Your task to perform on an android device: Clear the shopping cart on amazon.com. Add razer blade to the cart on amazon.com Image 0: 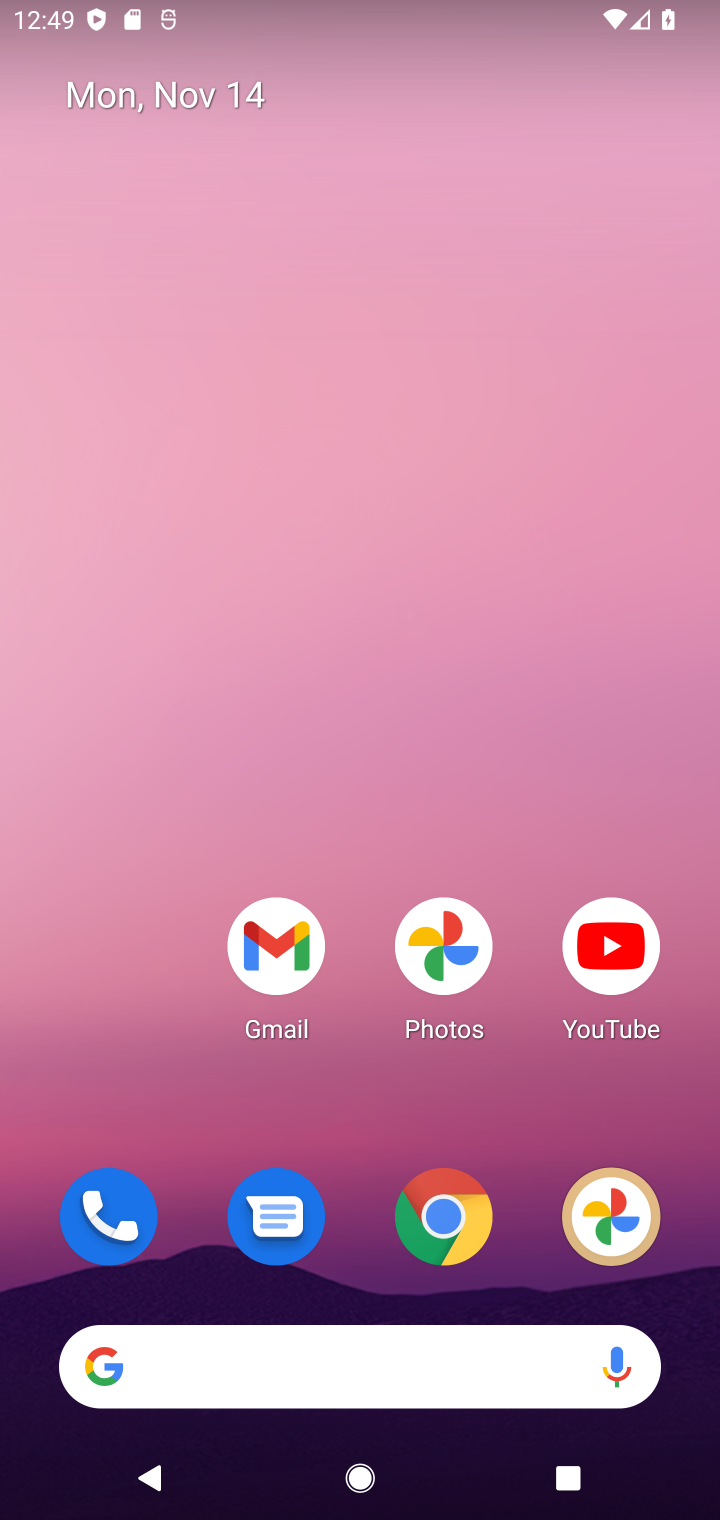
Step 0: click (428, 1220)
Your task to perform on an android device: Clear the shopping cart on amazon.com. Add razer blade to the cart on amazon.com Image 1: 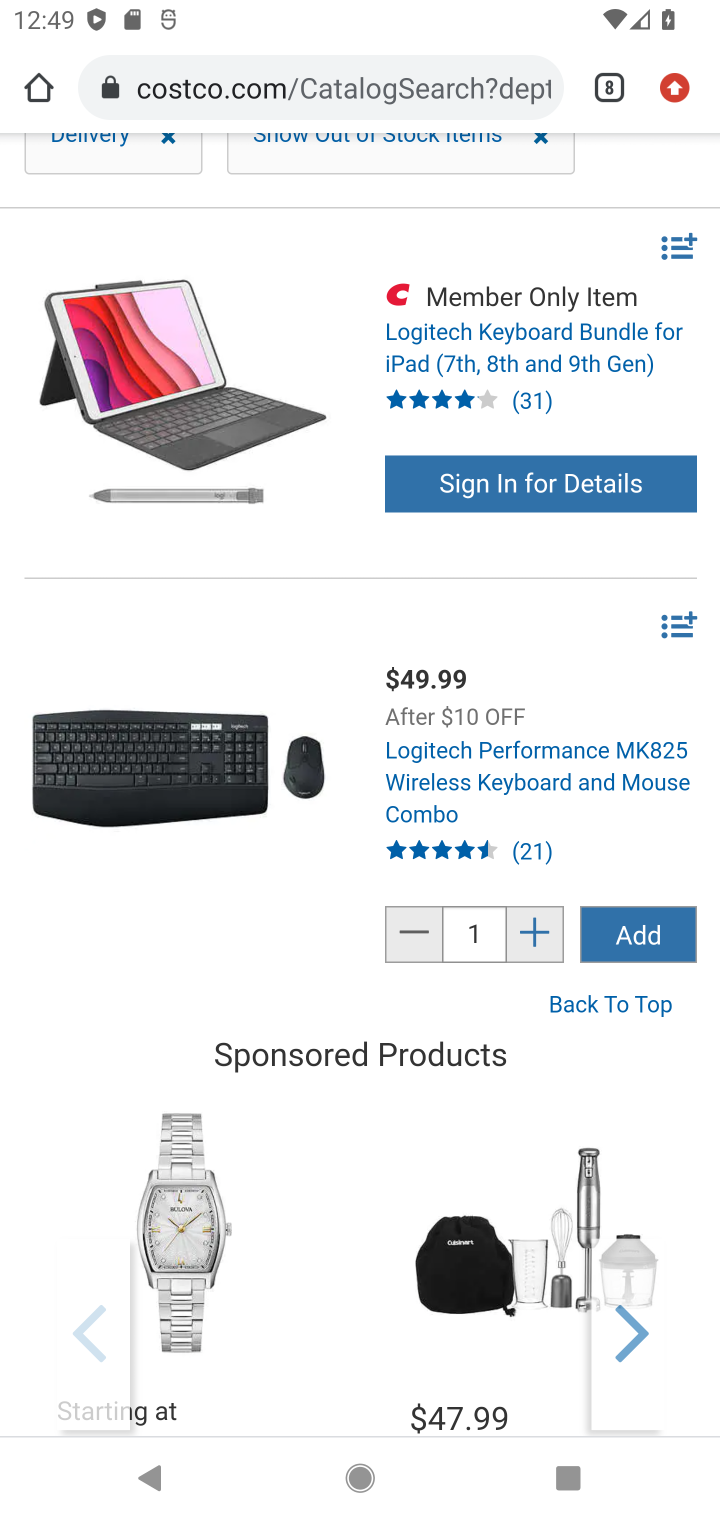
Step 1: click (597, 82)
Your task to perform on an android device: Clear the shopping cart on amazon.com. Add razer blade to the cart on amazon.com Image 2: 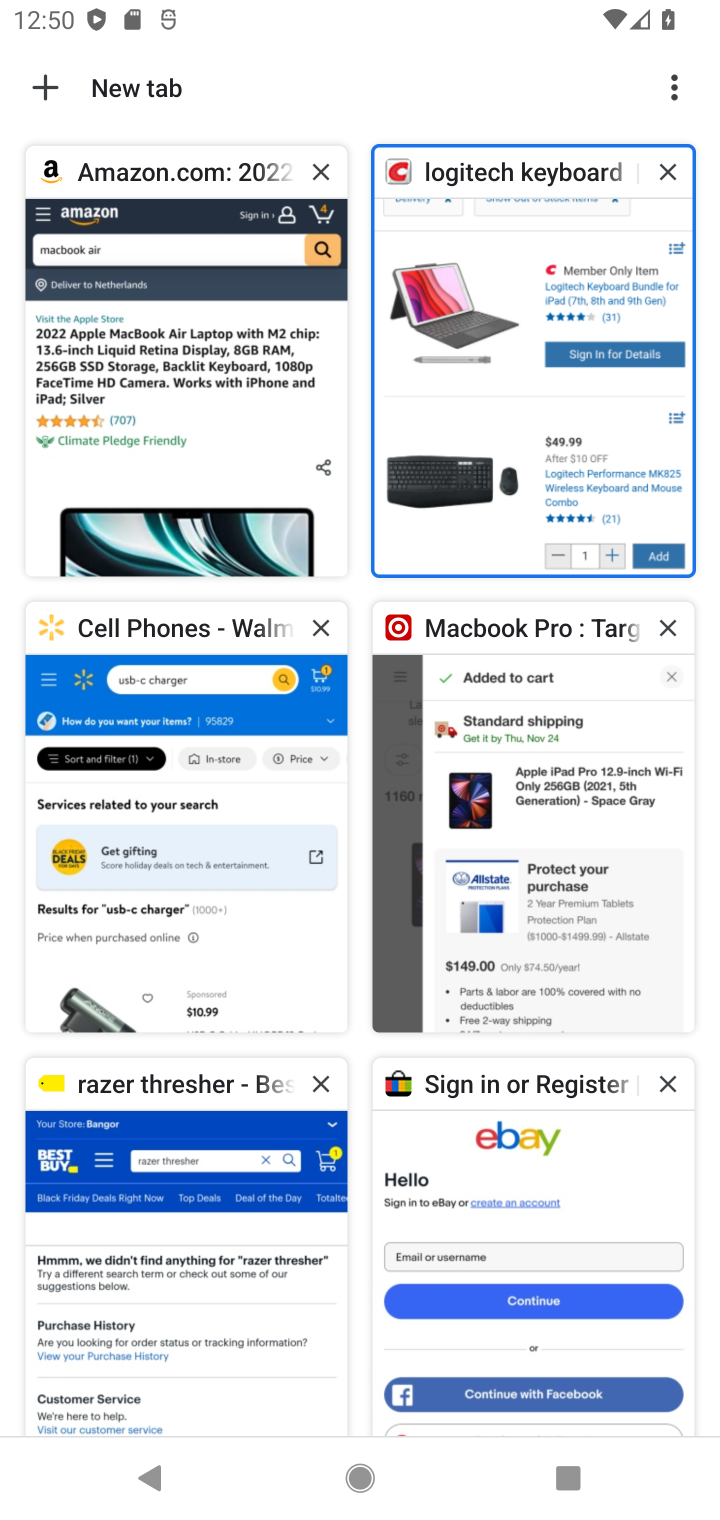
Step 2: click (165, 295)
Your task to perform on an android device: Clear the shopping cart on amazon.com. Add razer blade to the cart on amazon.com Image 3: 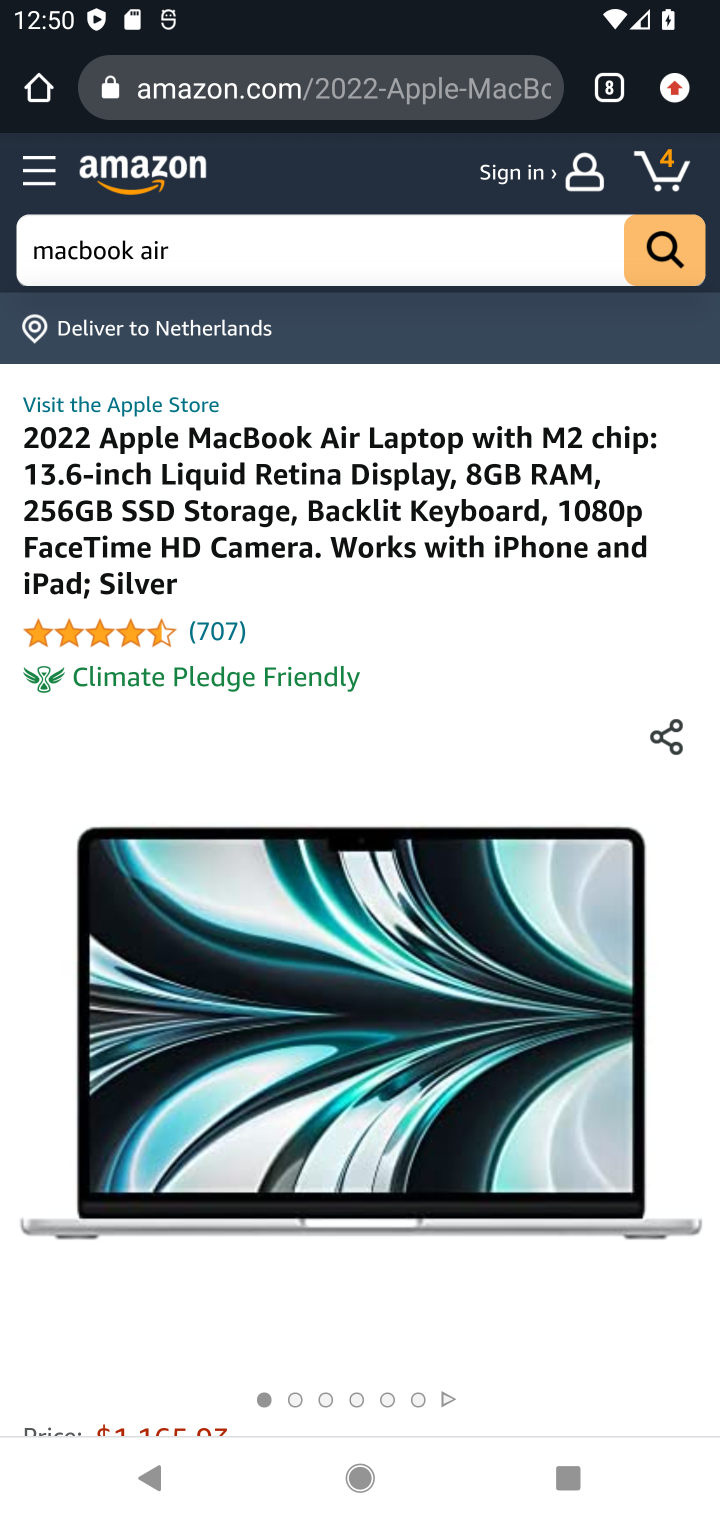
Step 3: click (678, 187)
Your task to perform on an android device: Clear the shopping cart on amazon.com. Add razer blade to the cart on amazon.com Image 4: 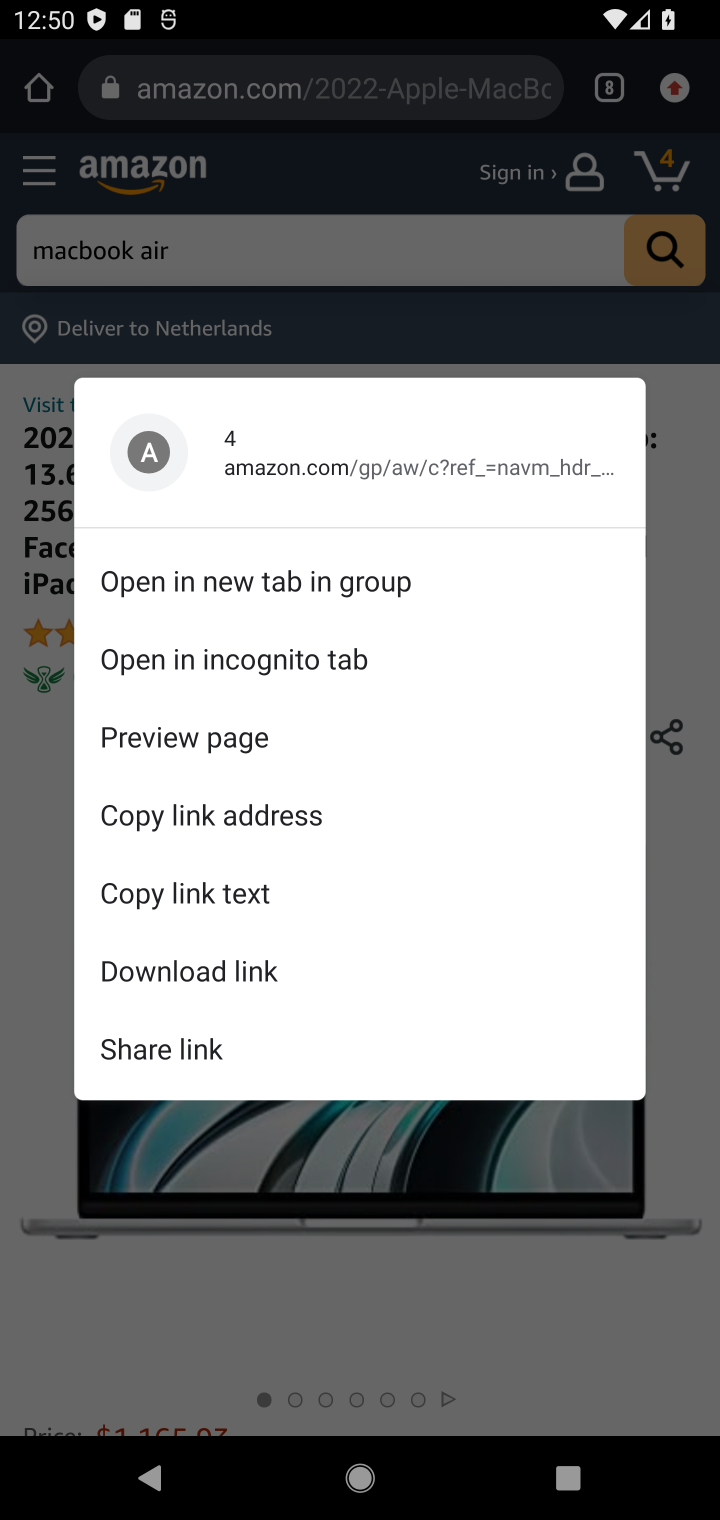
Step 4: click (668, 179)
Your task to perform on an android device: Clear the shopping cart on amazon.com. Add razer blade to the cart on amazon.com Image 5: 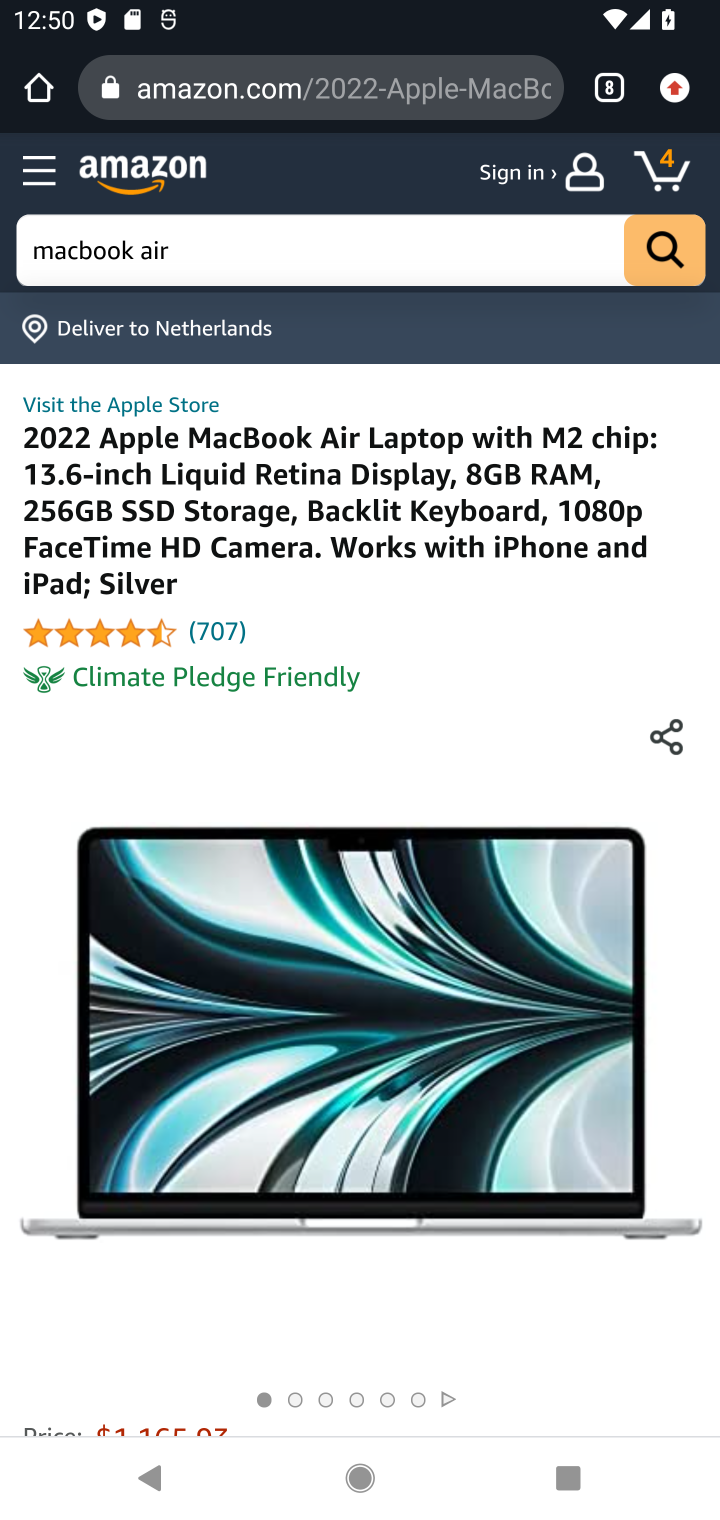
Step 5: click (668, 179)
Your task to perform on an android device: Clear the shopping cart on amazon.com. Add razer blade to the cart on amazon.com Image 6: 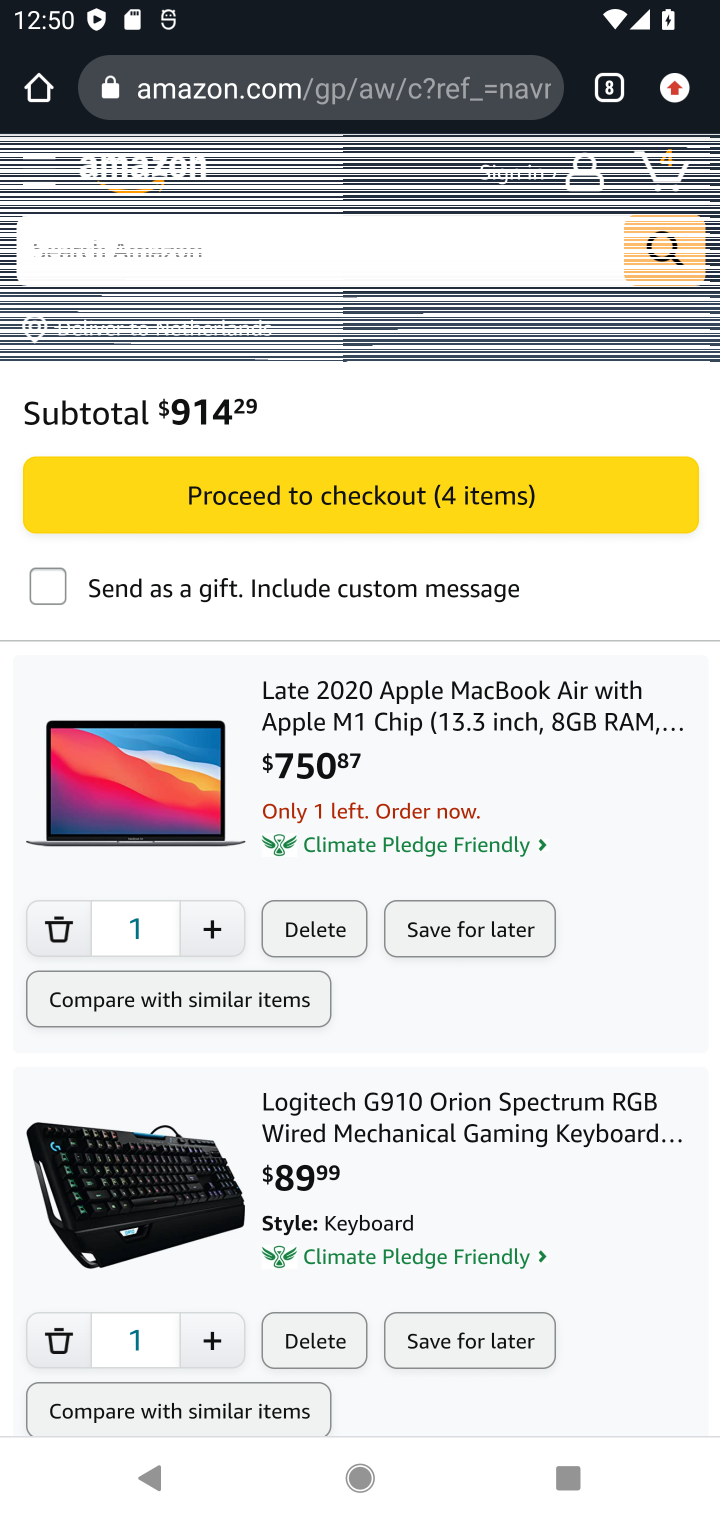
Step 6: click (317, 933)
Your task to perform on an android device: Clear the shopping cart on amazon.com. Add razer blade to the cart on amazon.com Image 7: 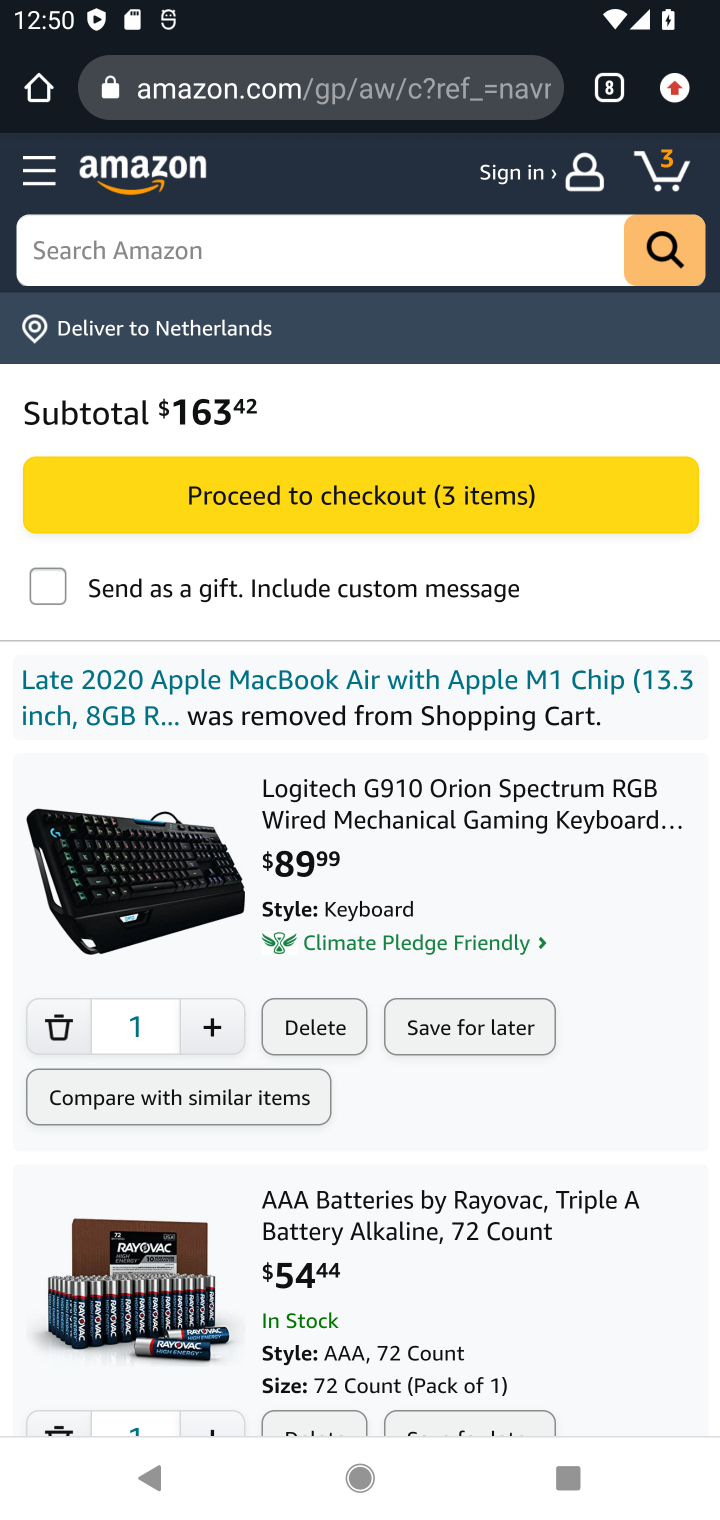
Step 7: click (311, 1020)
Your task to perform on an android device: Clear the shopping cart on amazon.com. Add razer blade to the cart on amazon.com Image 8: 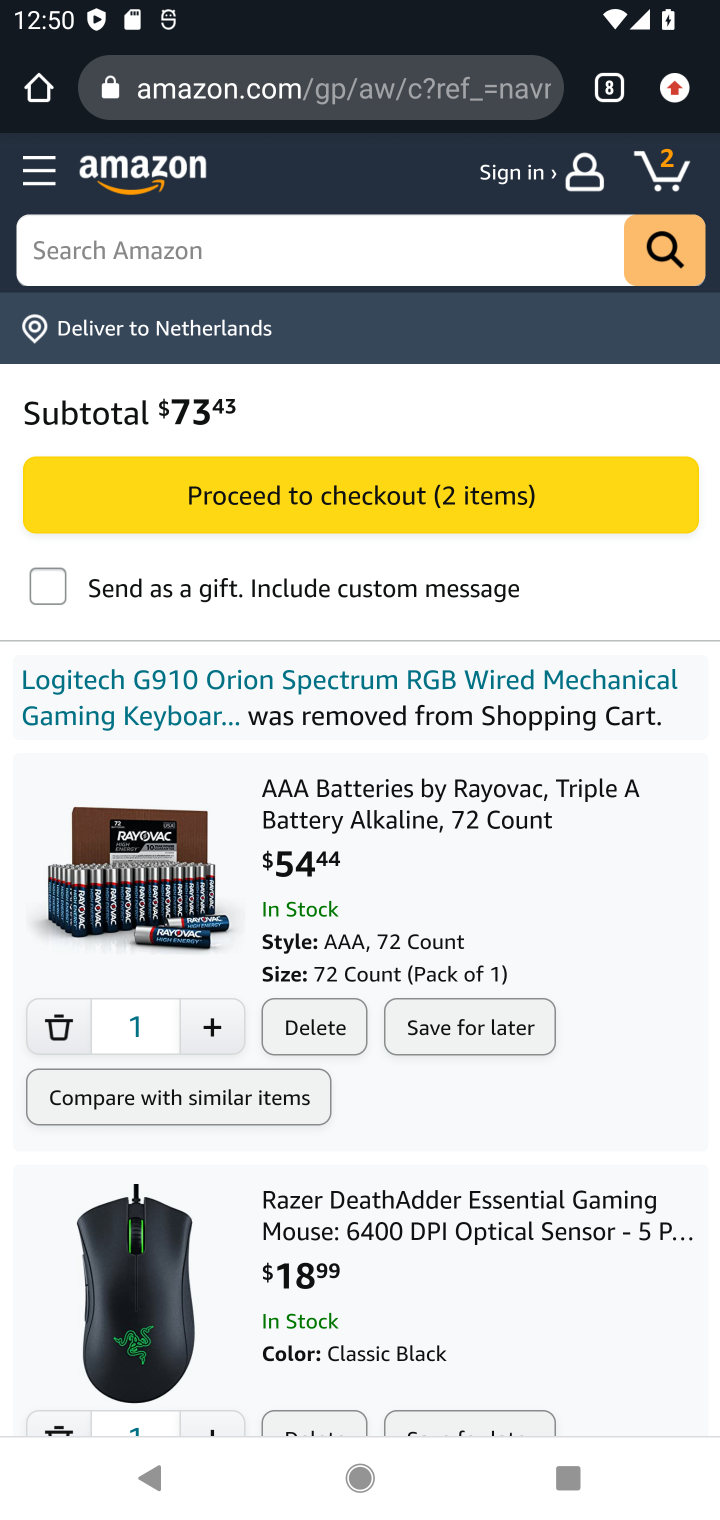
Step 8: click (311, 1020)
Your task to perform on an android device: Clear the shopping cart on amazon.com. Add razer blade to the cart on amazon.com Image 9: 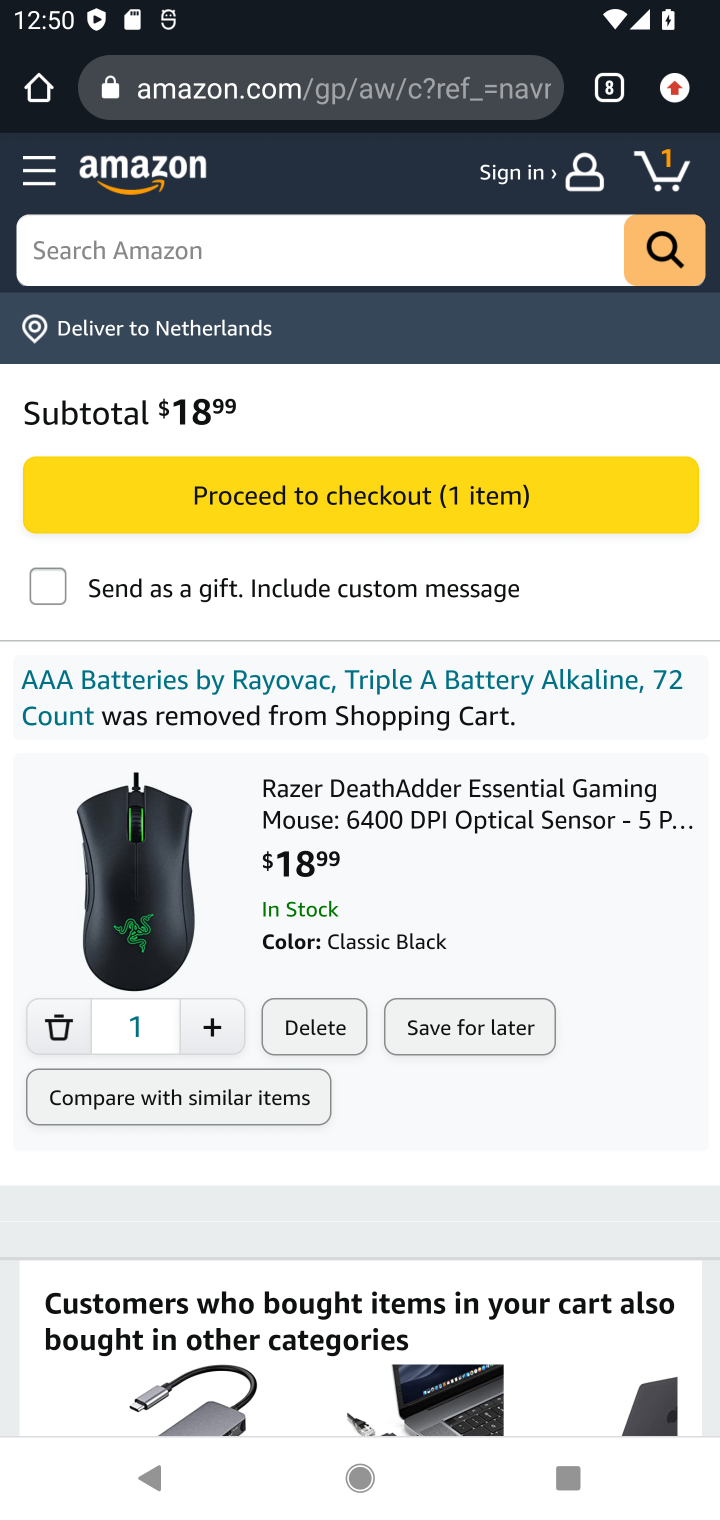
Step 9: click (311, 1020)
Your task to perform on an android device: Clear the shopping cart on amazon.com. Add razer blade to the cart on amazon.com Image 10: 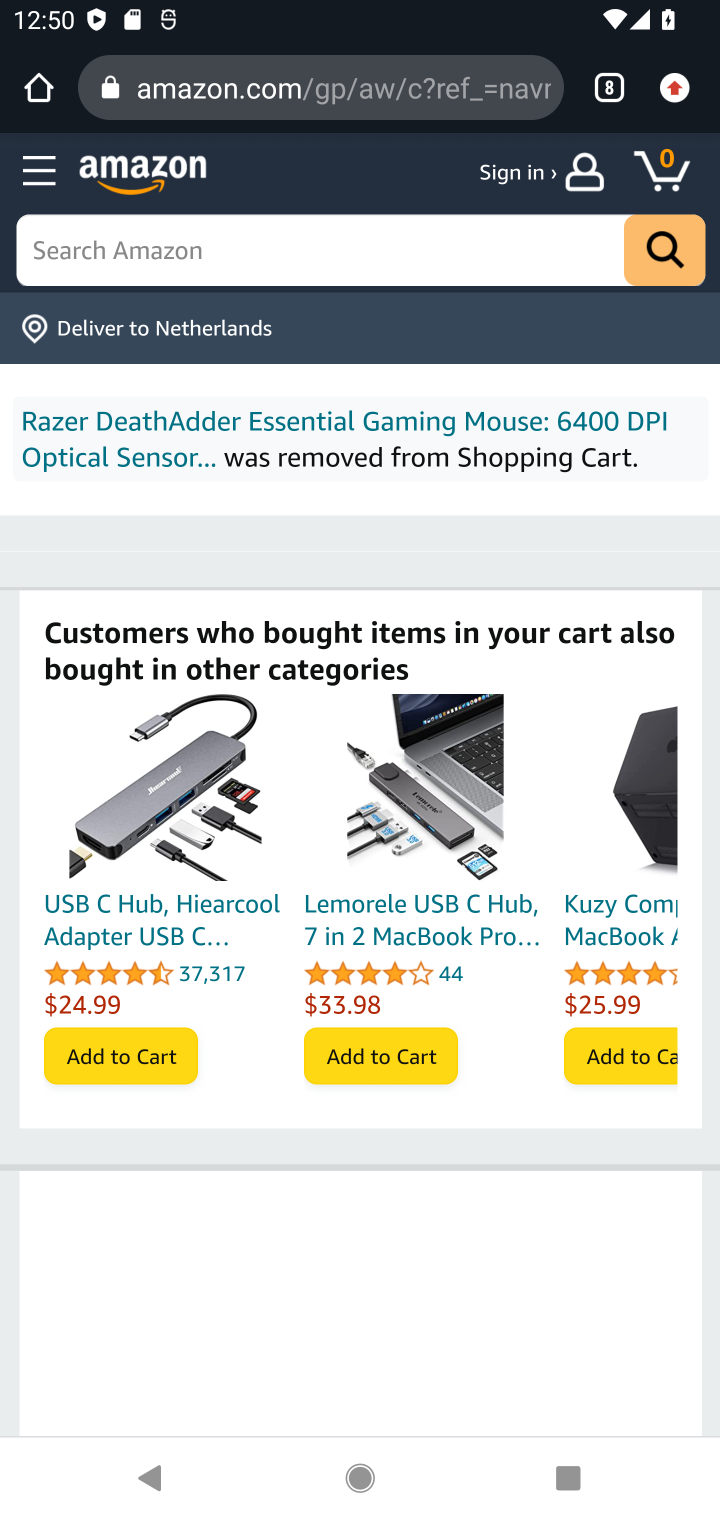
Step 10: type "razer blade"
Your task to perform on an android device: Clear the shopping cart on amazon.com. Add razer blade to the cart on amazon.com Image 11: 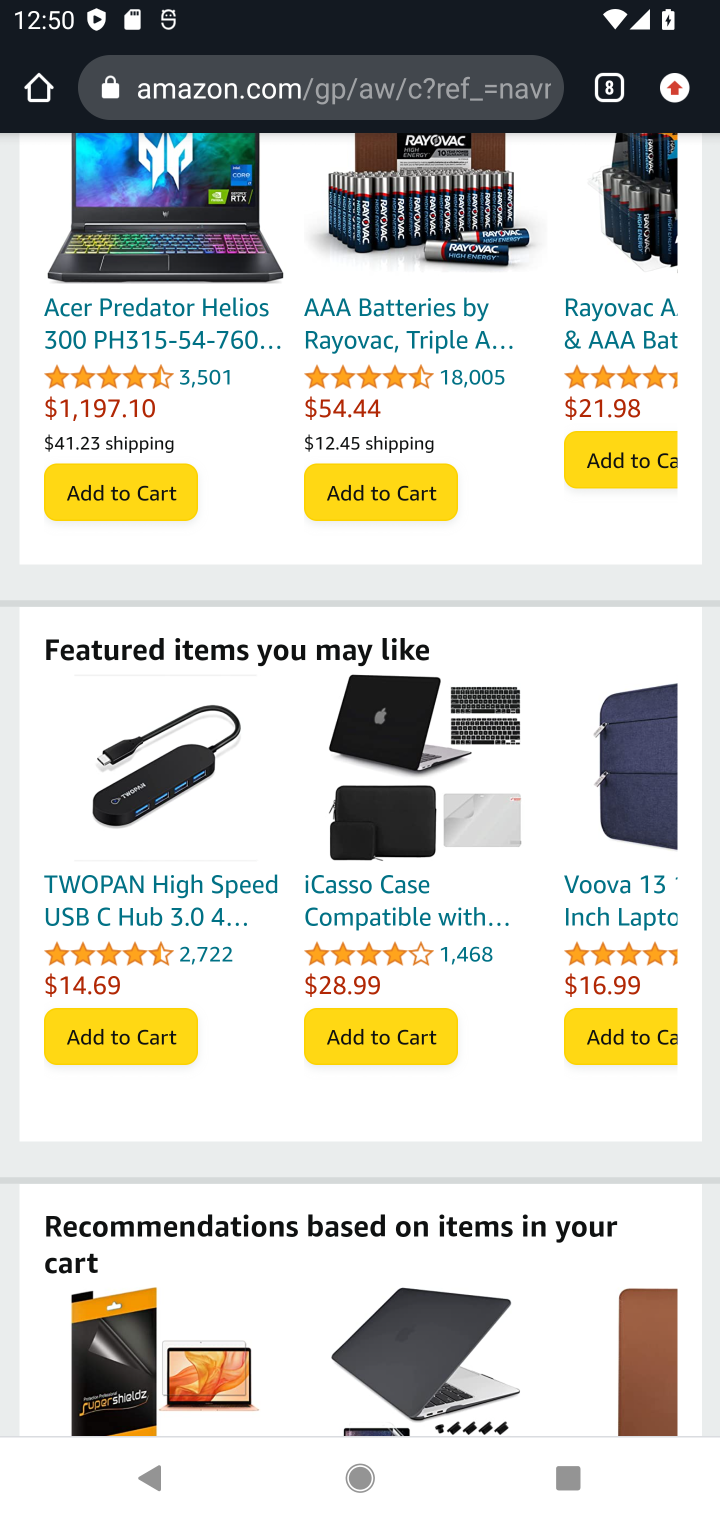
Step 11: drag from (255, 305) to (154, 1035)
Your task to perform on an android device: Clear the shopping cart on amazon.com. Add razer blade to the cart on amazon.com Image 12: 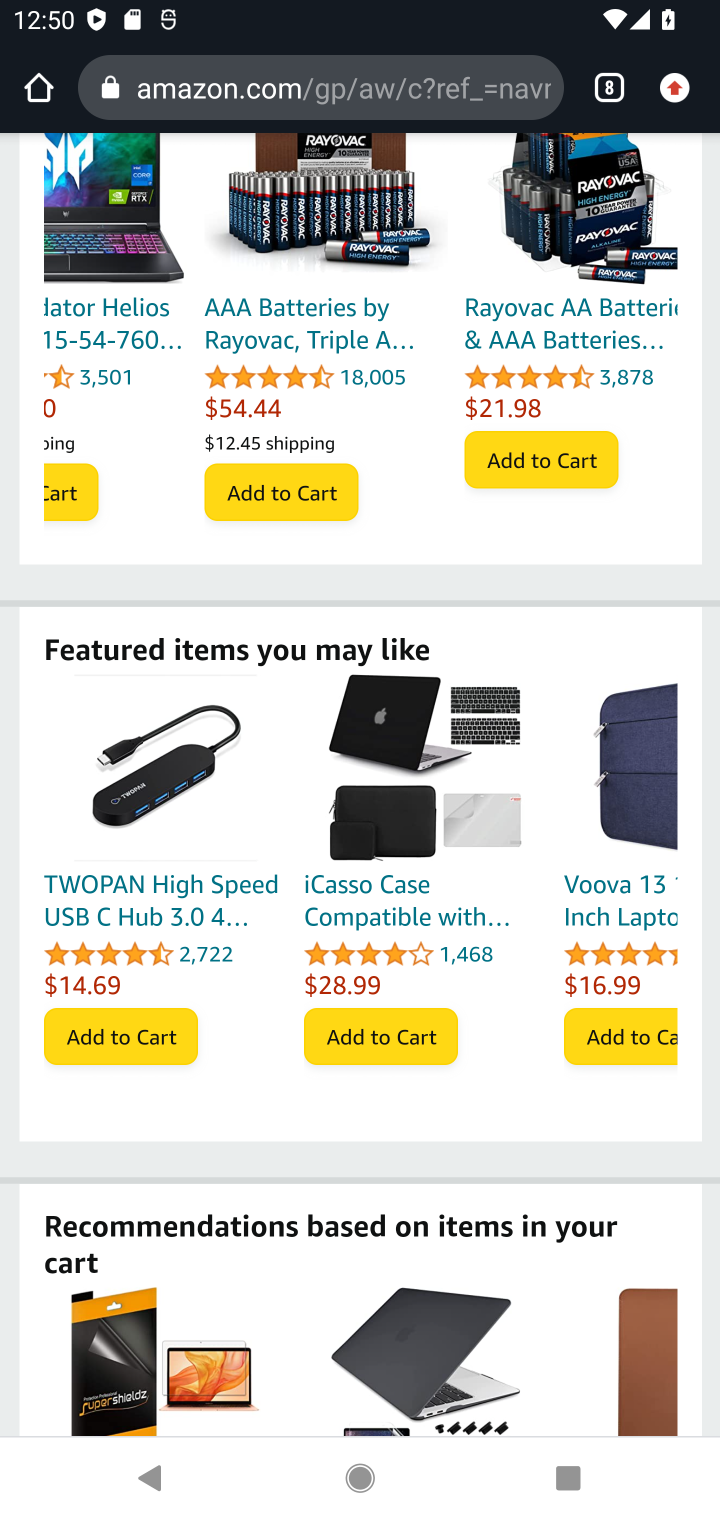
Step 12: drag from (209, 259) to (184, 864)
Your task to perform on an android device: Clear the shopping cart on amazon.com. Add razer blade to the cart on amazon.com Image 13: 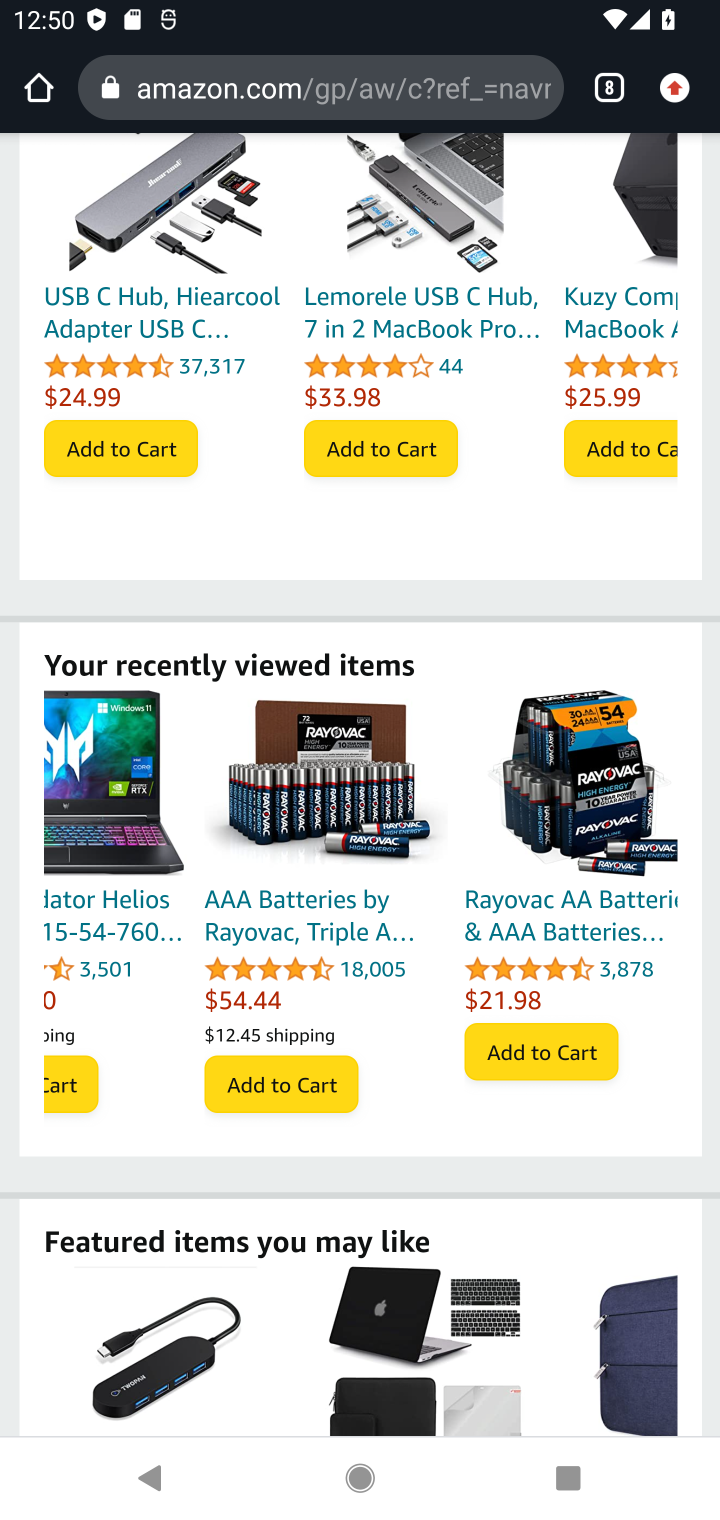
Step 13: drag from (148, 224) to (159, 1211)
Your task to perform on an android device: Clear the shopping cart on amazon.com. Add razer blade to the cart on amazon.com Image 14: 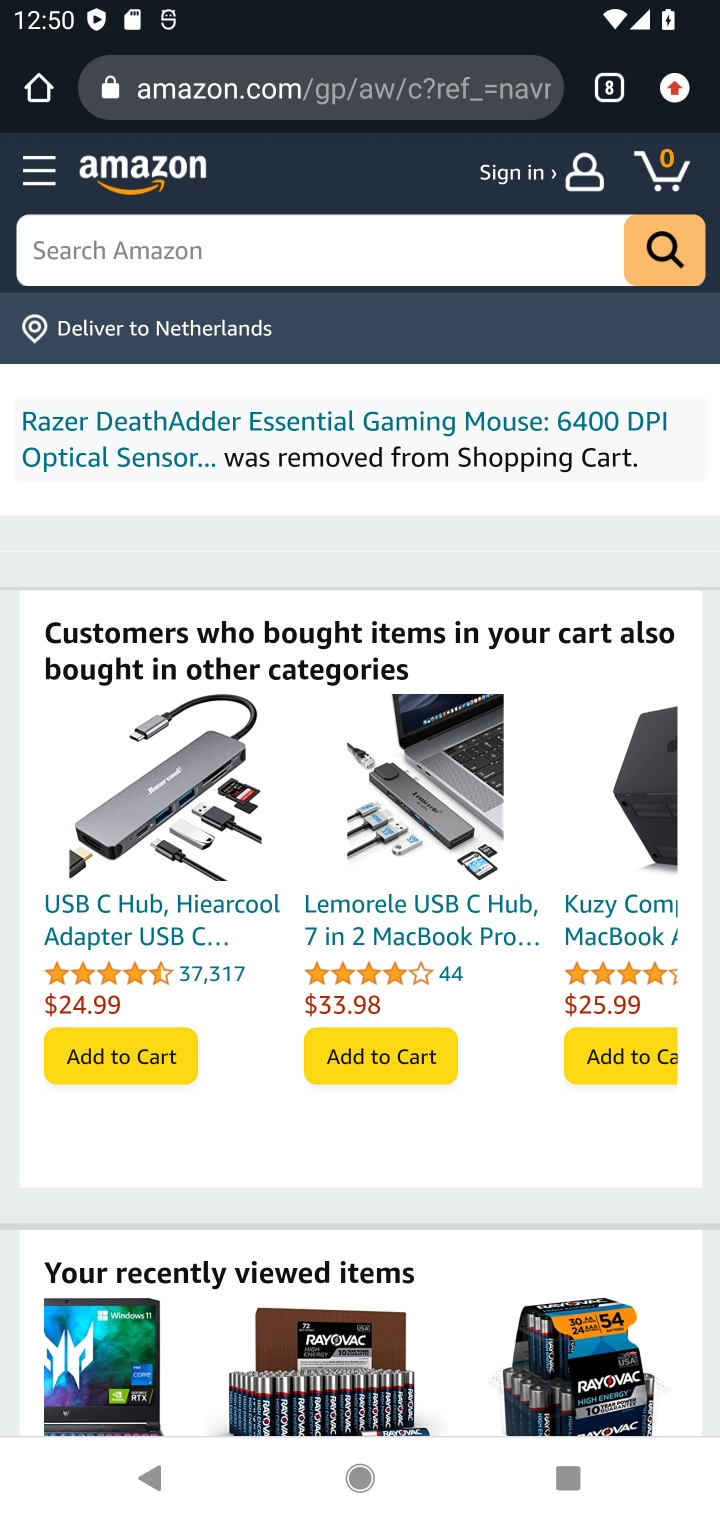
Step 14: click (188, 247)
Your task to perform on an android device: Clear the shopping cart on amazon.com. Add razer blade to the cart on amazon.com Image 15: 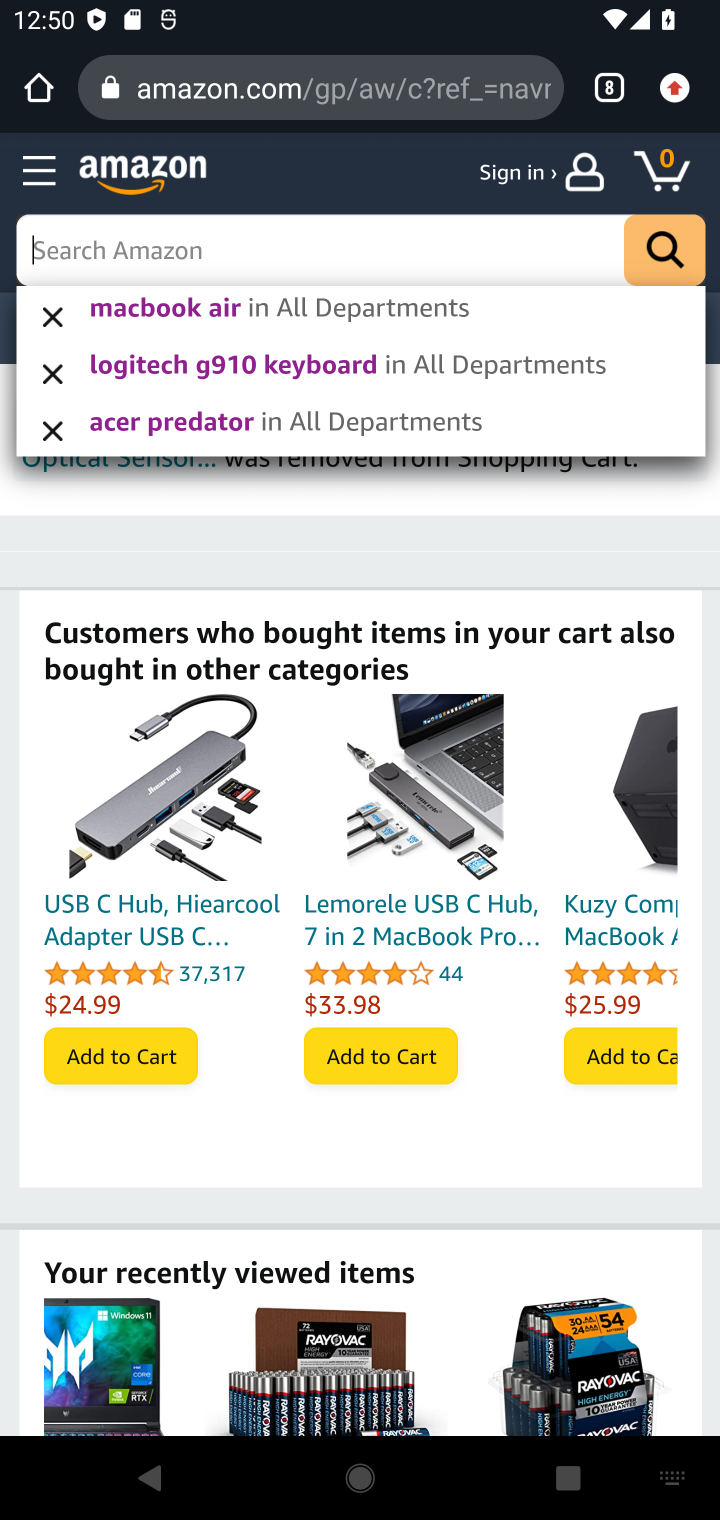
Step 15: type "razer blade"
Your task to perform on an android device: Clear the shopping cart on amazon.com. Add razer blade to the cart on amazon.com Image 16: 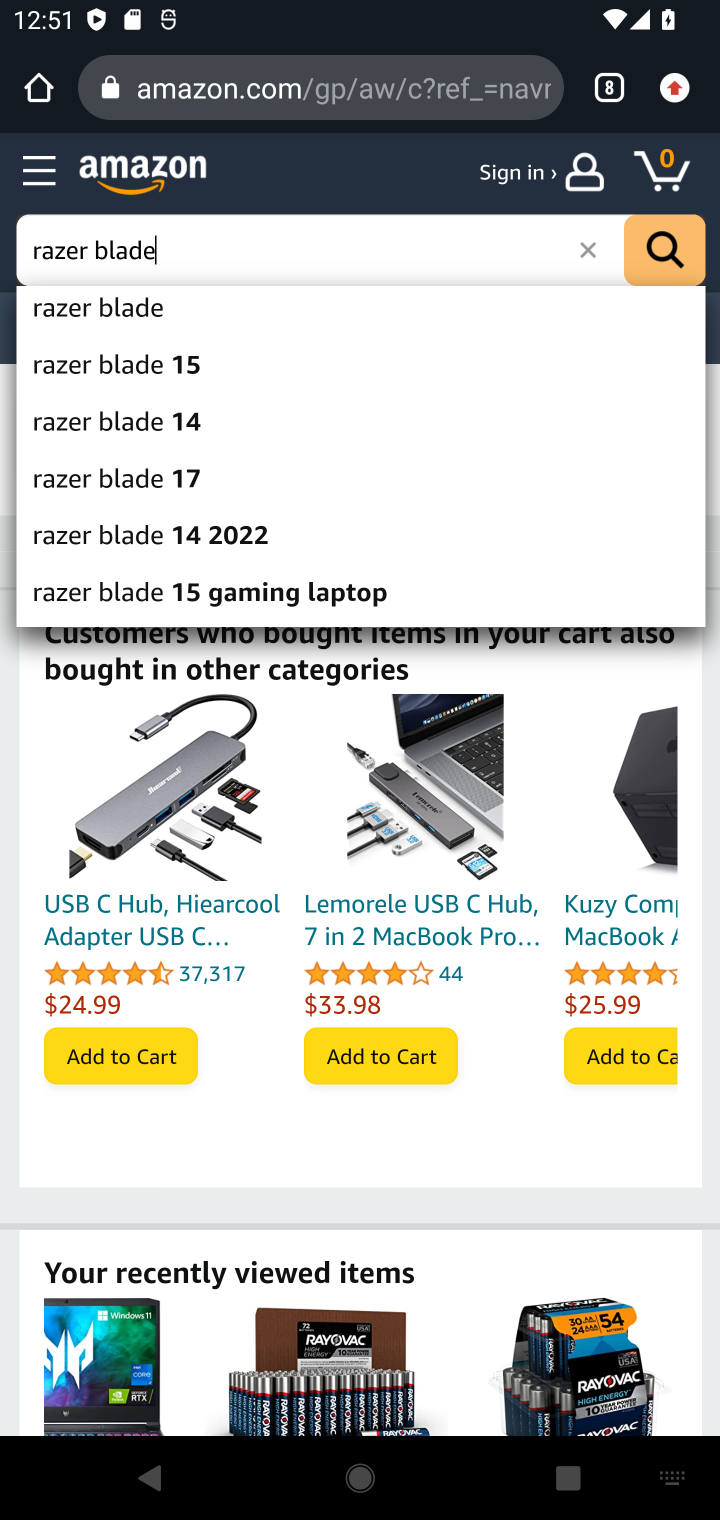
Step 16: click (115, 310)
Your task to perform on an android device: Clear the shopping cart on amazon.com. Add razer blade to the cart on amazon.com Image 17: 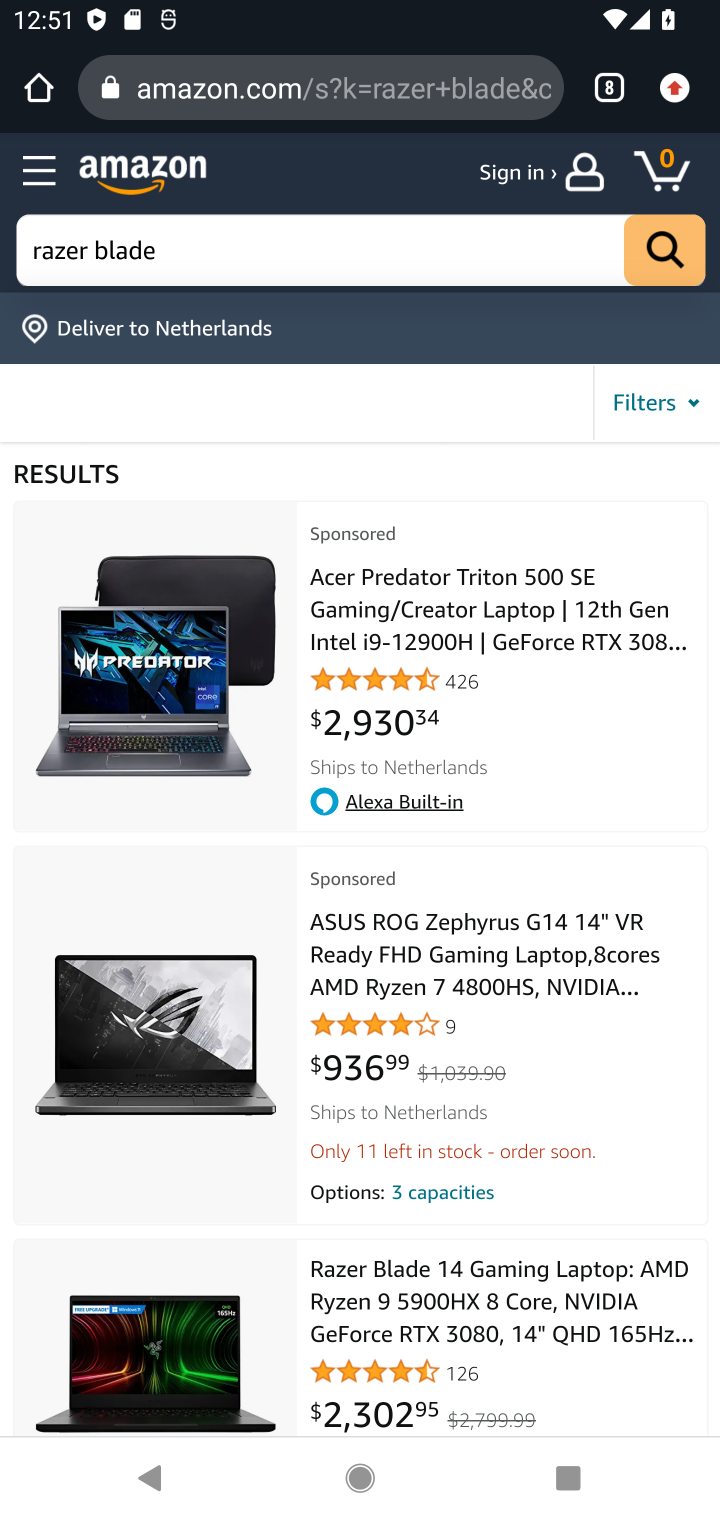
Step 17: click (430, 1273)
Your task to perform on an android device: Clear the shopping cart on amazon.com. Add razer blade to the cart on amazon.com Image 18: 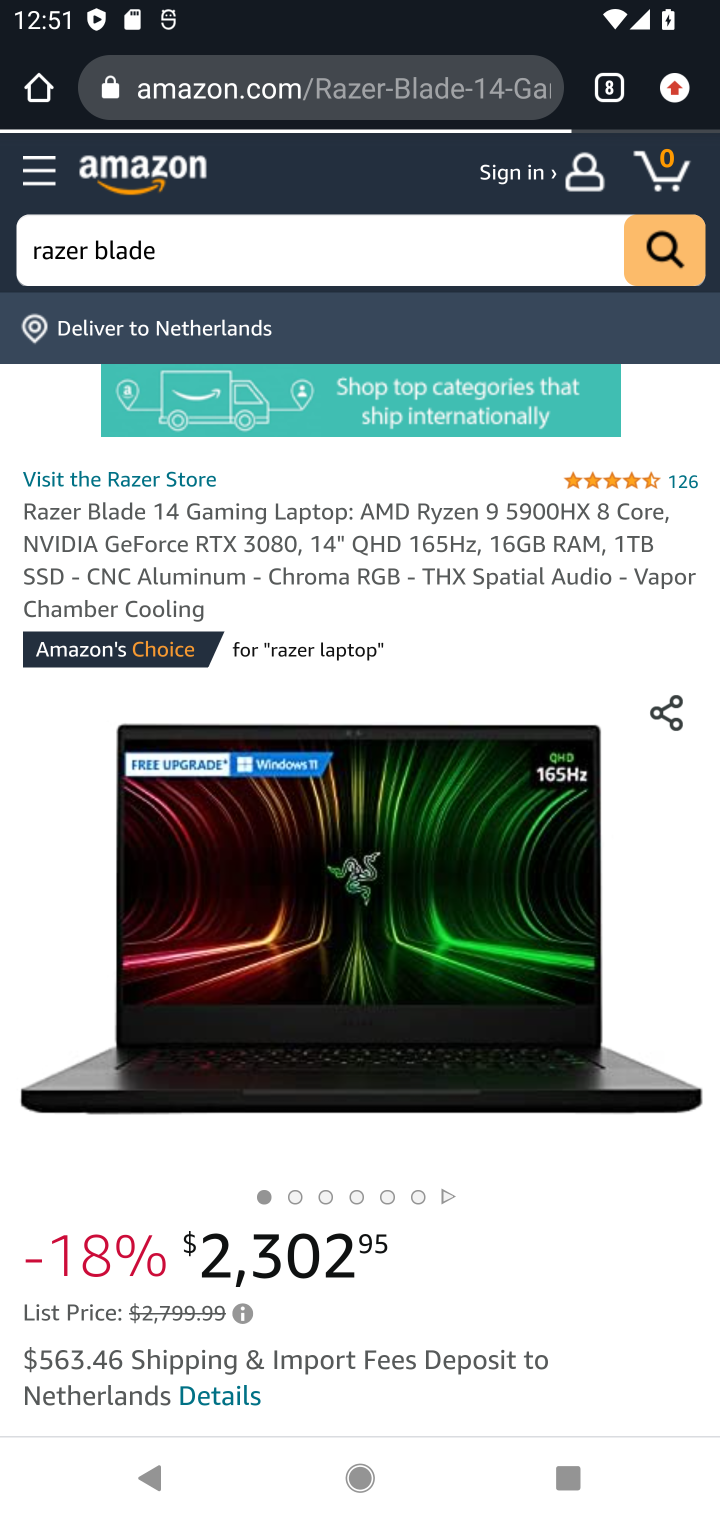
Step 18: drag from (398, 1241) to (456, 507)
Your task to perform on an android device: Clear the shopping cart on amazon.com. Add razer blade to the cart on amazon.com Image 19: 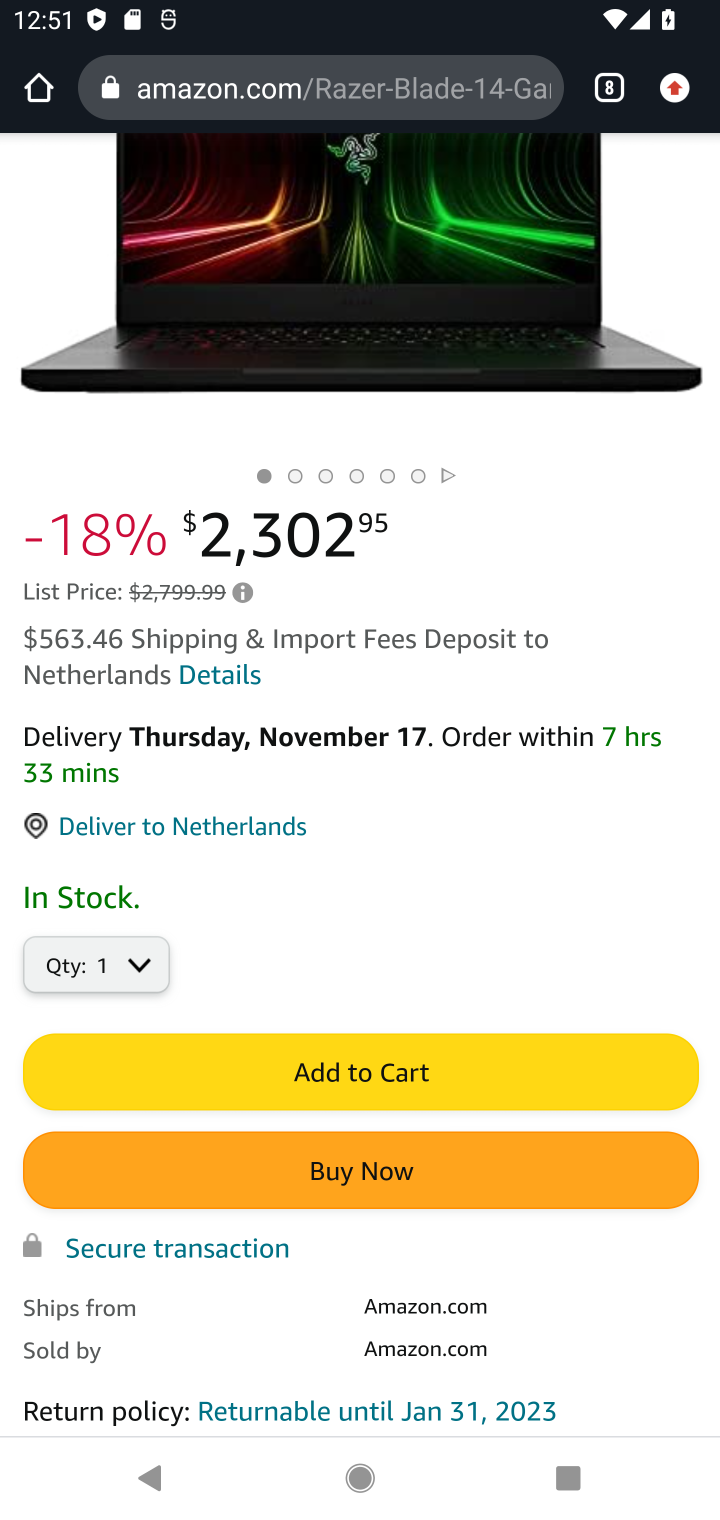
Step 19: click (443, 1074)
Your task to perform on an android device: Clear the shopping cart on amazon.com. Add razer blade to the cart on amazon.com Image 20: 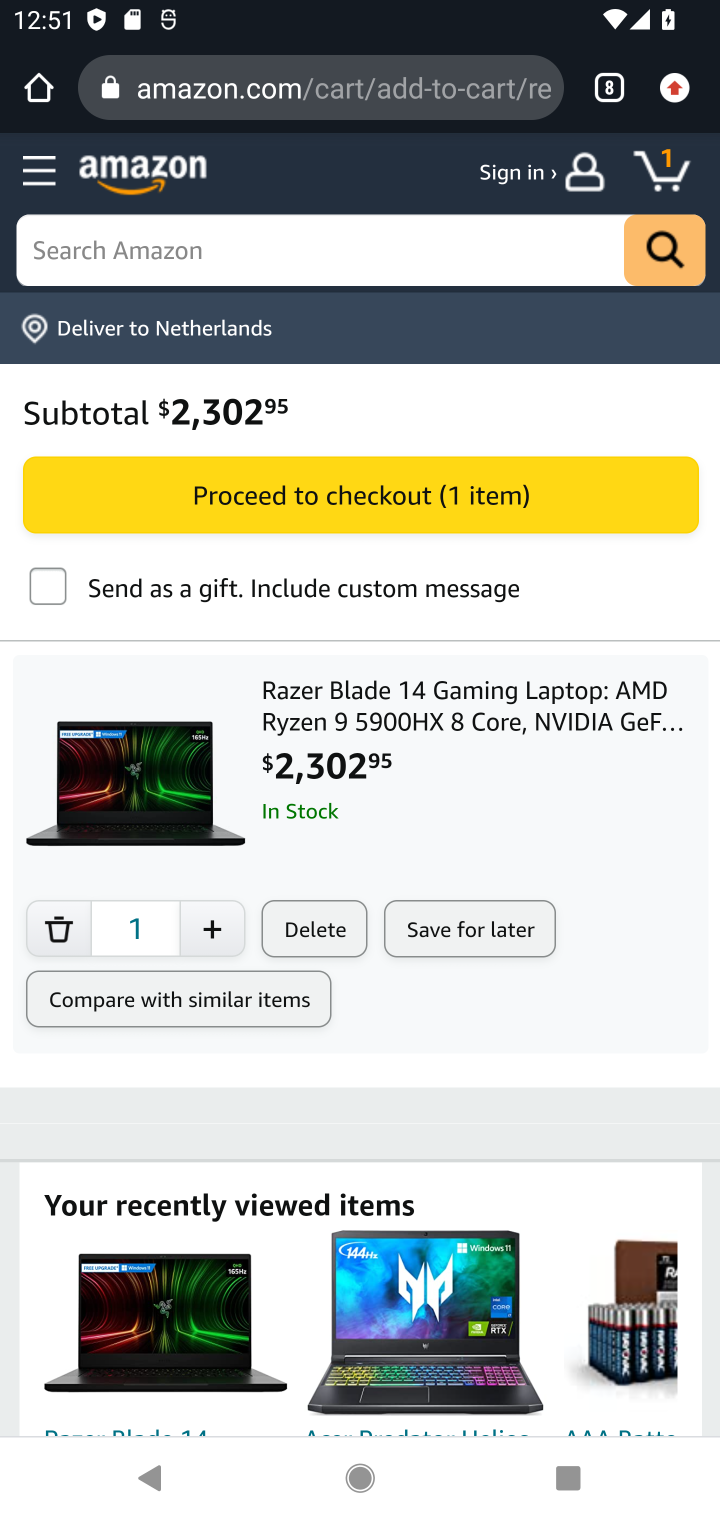
Step 20: task complete